Your task to perform on an android device: toggle data saver in the chrome app Image 0: 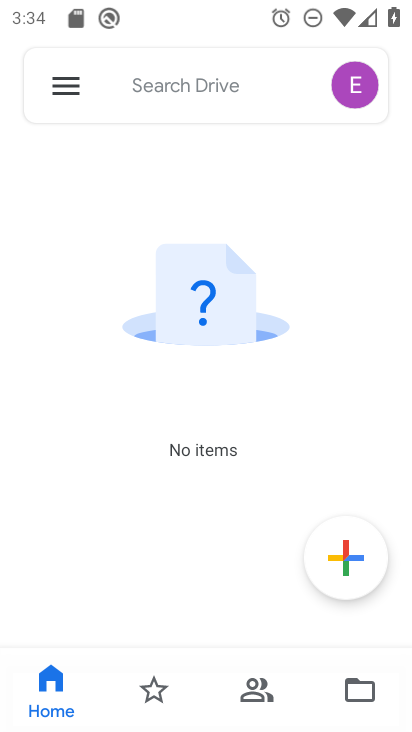
Step 0: press home button
Your task to perform on an android device: toggle data saver in the chrome app Image 1: 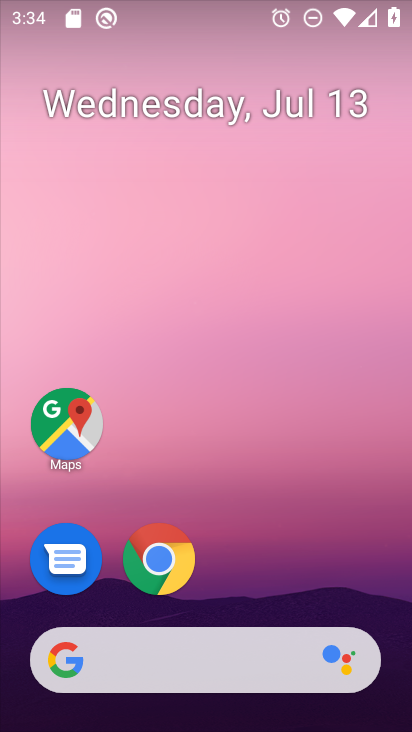
Step 1: drag from (320, 575) to (322, 219)
Your task to perform on an android device: toggle data saver in the chrome app Image 2: 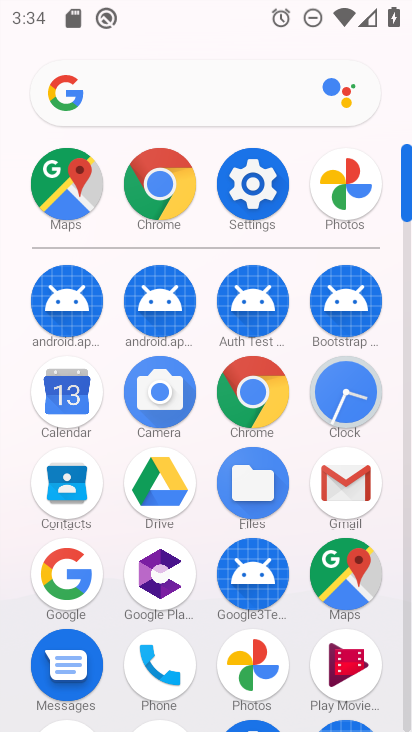
Step 2: click (256, 390)
Your task to perform on an android device: toggle data saver in the chrome app Image 3: 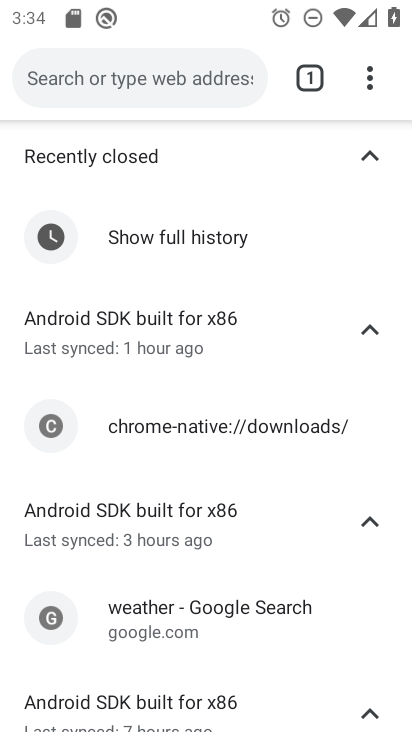
Step 3: click (370, 92)
Your task to perform on an android device: toggle data saver in the chrome app Image 4: 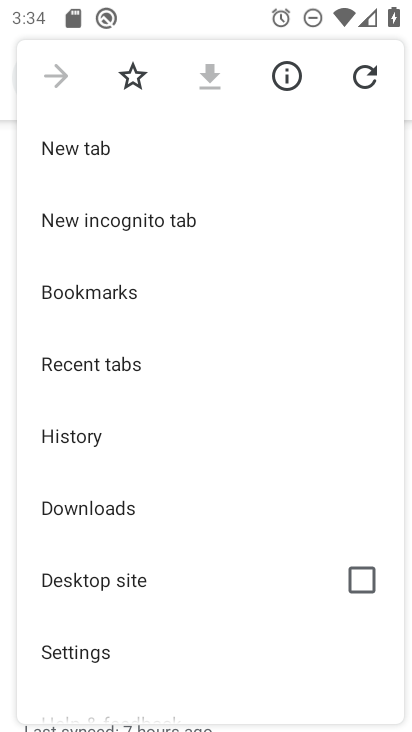
Step 4: drag from (269, 415) to (281, 161)
Your task to perform on an android device: toggle data saver in the chrome app Image 5: 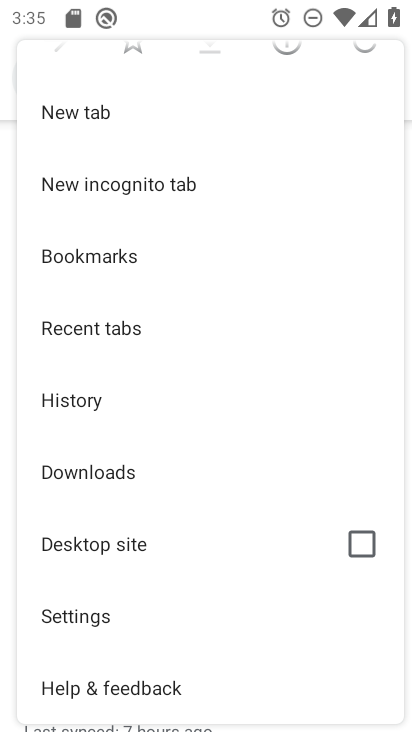
Step 5: click (128, 617)
Your task to perform on an android device: toggle data saver in the chrome app Image 6: 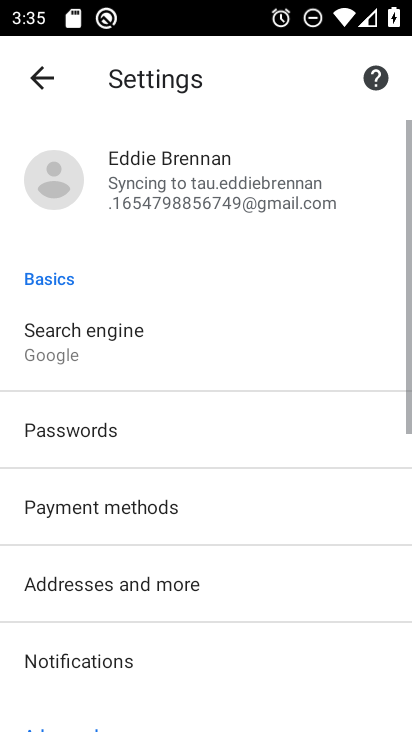
Step 6: drag from (279, 534) to (296, 450)
Your task to perform on an android device: toggle data saver in the chrome app Image 7: 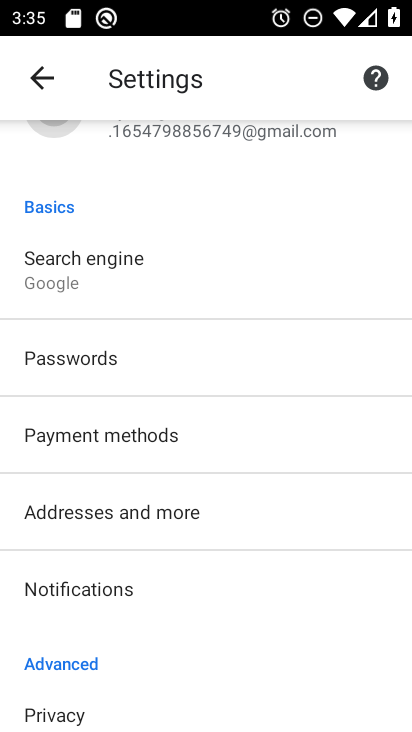
Step 7: drag from (316, 586) to (317, 486)
Your task to perform on an android device: toggle data saver in the chrome app Image 8: 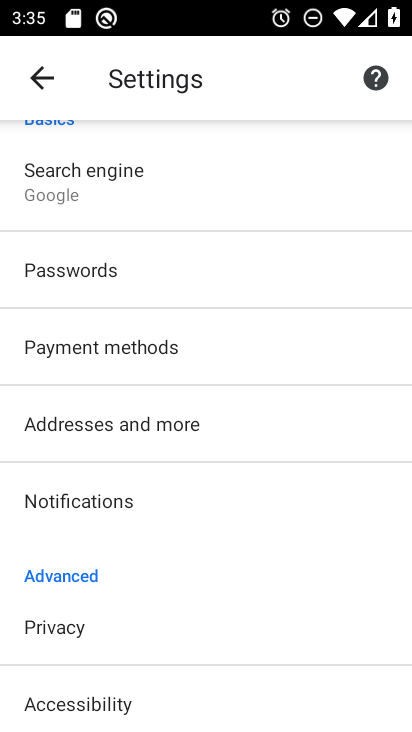
Step 8: drag from (306, 546) to (304, 449)
Your task to perform on an android device: toggle data saver in the chrome app Image 9: 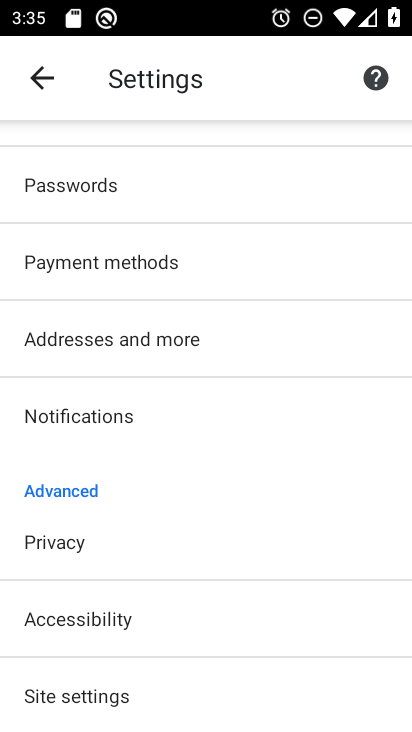
Step 9: drag from (279, 566) to (279, 460)
Your task to perform on an android device: toggle data saver in the chrome app Image 10: 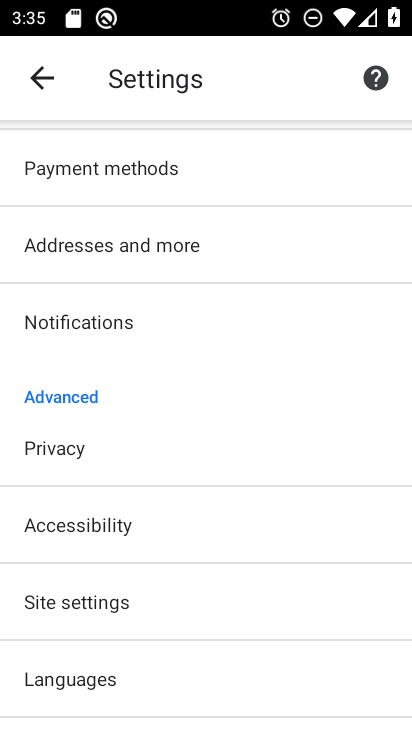
Step 10: drag from (276, 588) to (285, 429)
Your task to perform on an android device: toggle data saver in the chrome app Image 11: 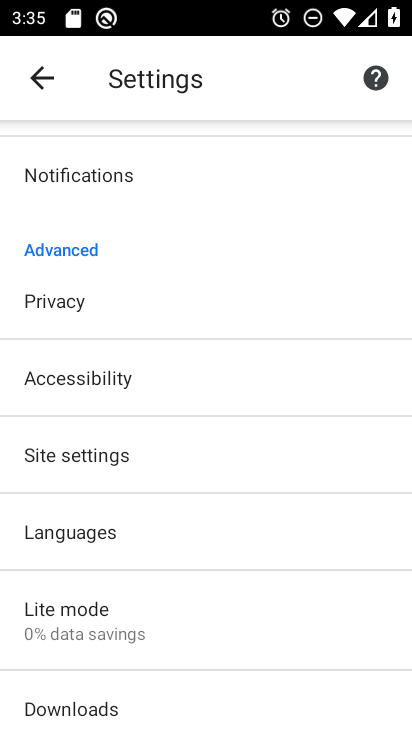
Step 11: drag from (285, 578) to (294, 443)
Your task to perform on an android device: toggle data saver in the chrome app Image 12: 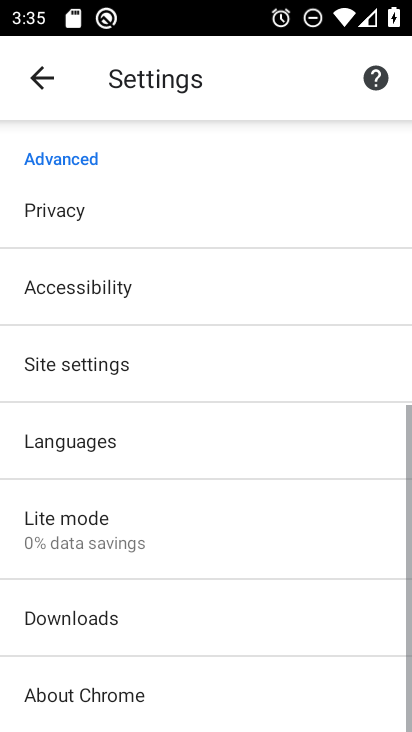
Step 12: click (277, 535)
Your task to perform on an android device: toggle data saver in the chrome app Image 13: 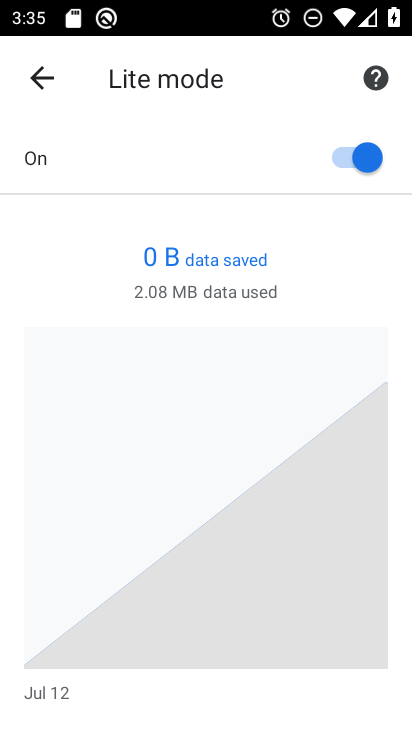
Step 13: click (353, 152)
Your task to perform on an android device: toggle data saver in the chrome app Image 14: 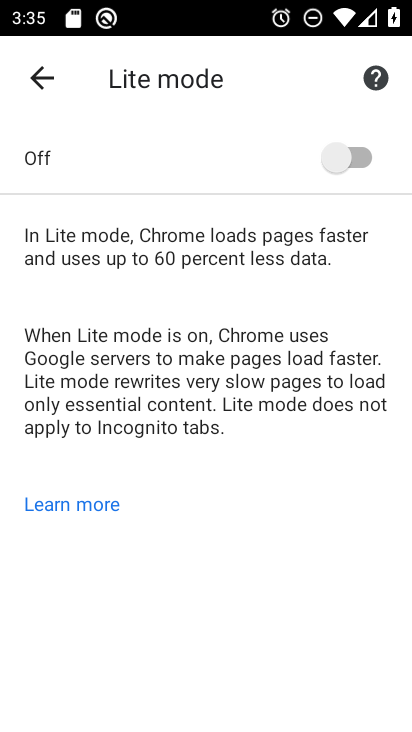
Step 14: task complete